Your task to perform on an android device: refresh tabs in the chrome app Image 0: 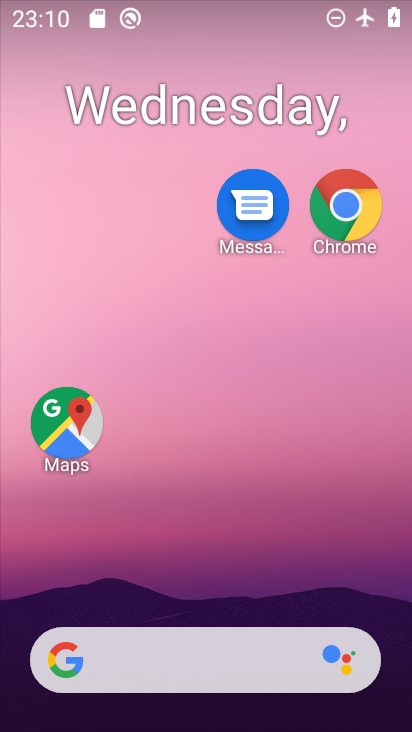
Step 0: drag from (184, 578) to (213, 3)
Your task to perform on an android device: refresh tabs in the chrome app Image 1: 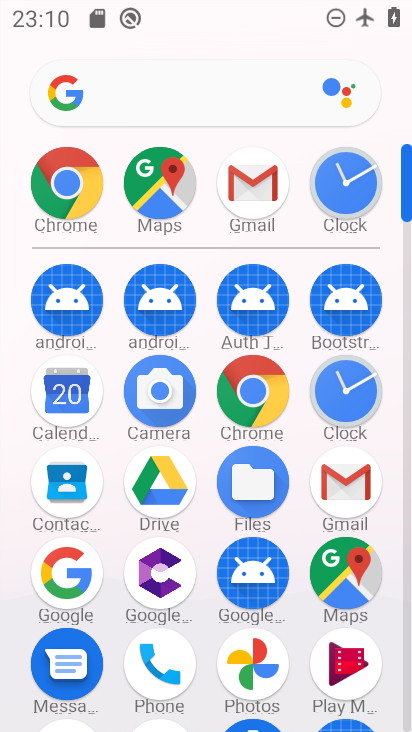
Step 1: click (257, 404)
Your task to perform on an android device: refresh tabs in the chrome app Image 2: 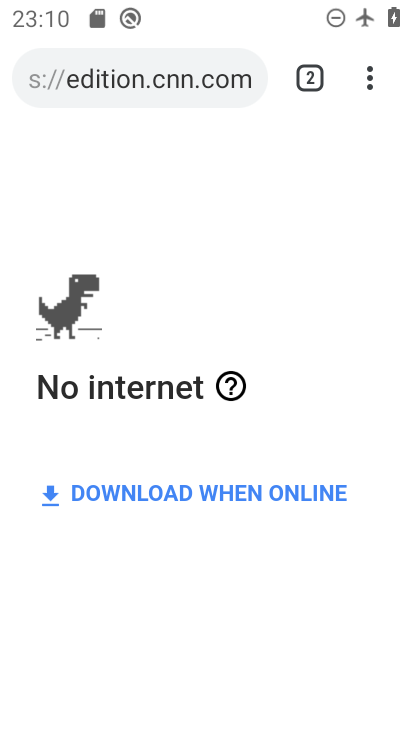
Step 2: drag from (199, 270) to (321, 668)
Your task to perform on an android device: refresh tabs in the chrome app Image 3: 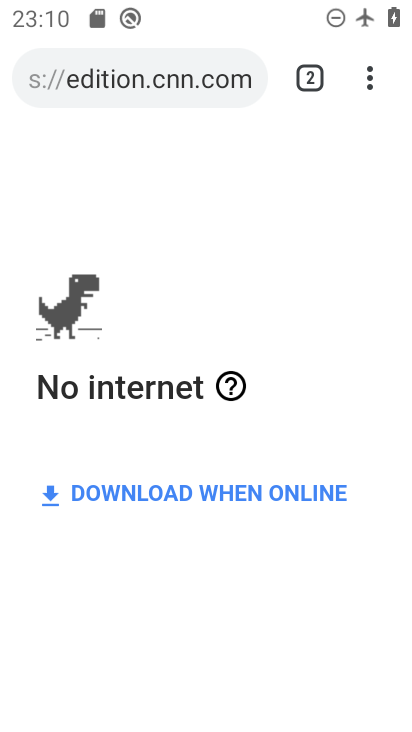
Step 3: click (370, 75)
Your task to perform on an android device: refresh tabs in the chrome app Image 4: 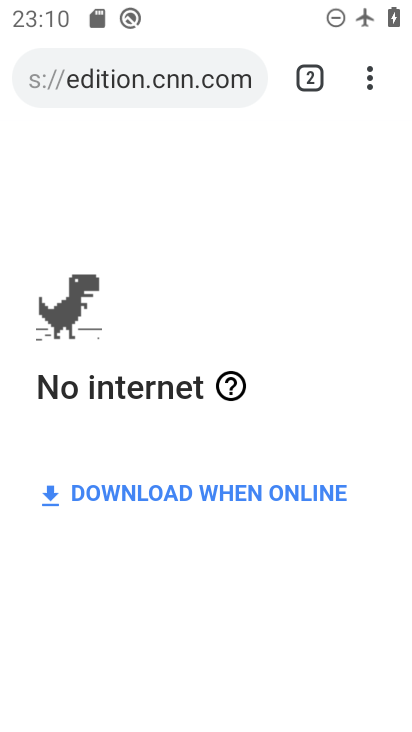
Step 4: task complete